Your task to perform on an android device: Is it going to rain tomorrow? Image 0: 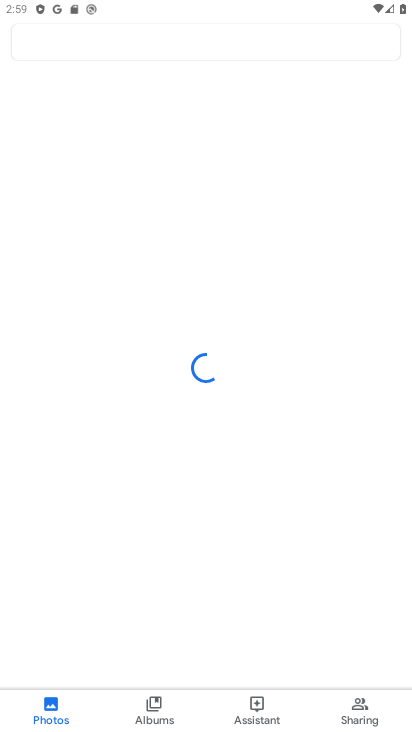
Step 0: press home button
Your task to perform on an android device: Is it going to rain tomorrow? Image 1: 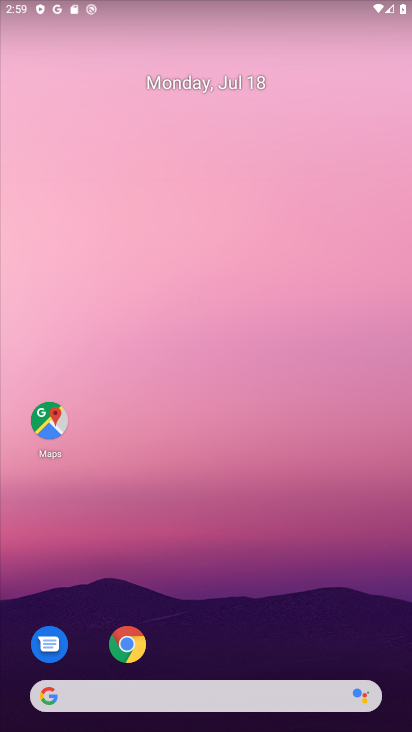
Step 1: drag from (229, 648) to (315, 132)
Your task to perform on an android device: Is it going to rain tomorrow? Image 2: 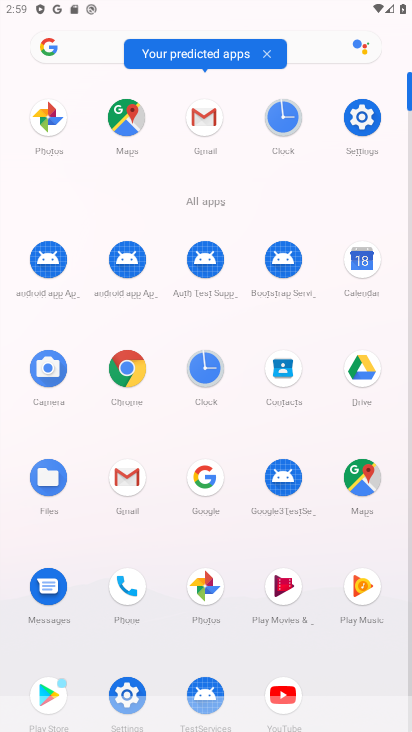
Step 2: click (204, 478)
Your task to perform on an android device: Is it going to rain tomorrow? Image 3: 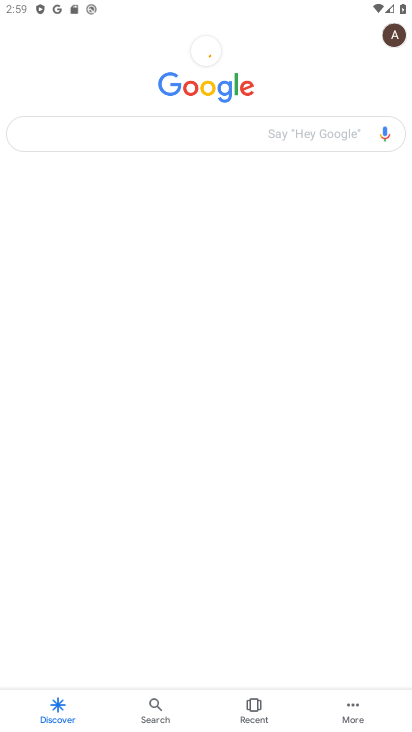
Step 3: click (236, 140)
Your task to perform on an android device: Is it going to rain tomorrow? Image 4: 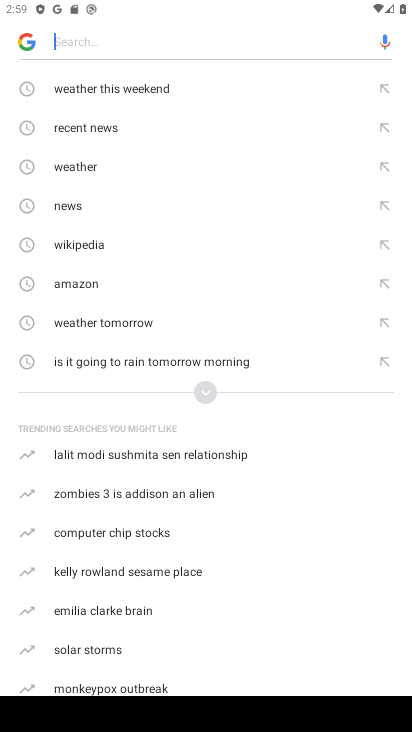
Step 4: type "Is it going to rain tomorrow?"
Your task to perform on an android device: Is it going to rain tomorrow? Image 5: 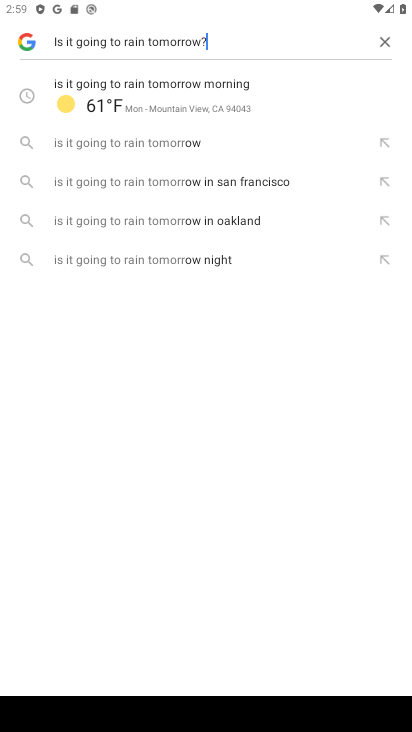
Step 5: type ""
Your task to perform on an android device: Is it going to rain tomorrow? Image 6: 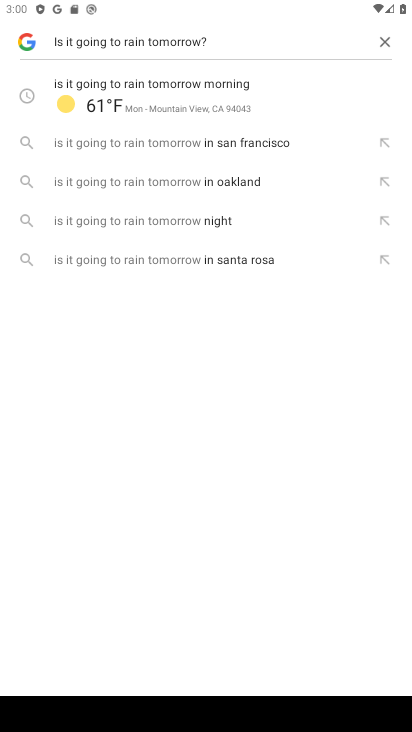
Step 6: press enter
Your task to perform on an android device: Is it going to rain tomorrow? Image 7: 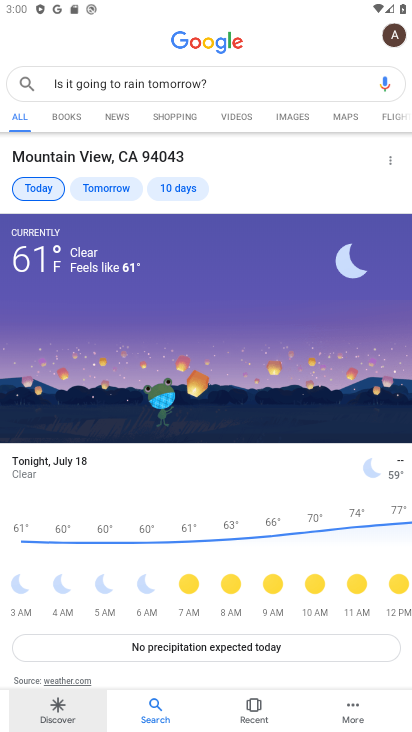
Step 7: task complete